Your task to perform on an android device: set the timer Image 0: 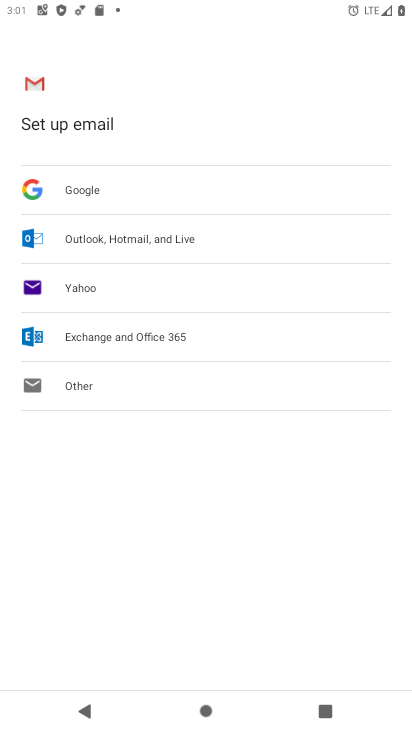
Step 0: press home button
Your task to perform on an android device: set the timer Image 1: 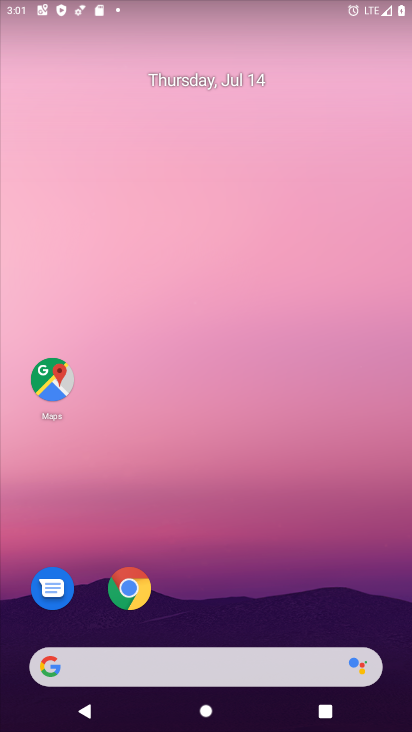
Step 1: drag from (288, 612) to (306, 270)
Your task to perform on an android device: set the timer Image 2: 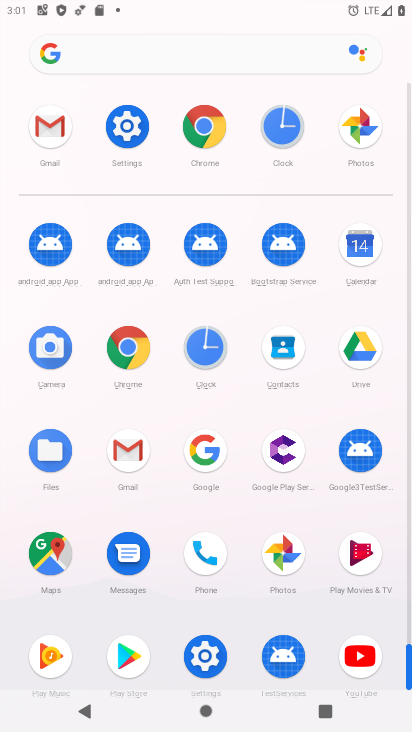
Step 2: click (273, 122)
Your task to perform on an android device: set the timer Image 3: 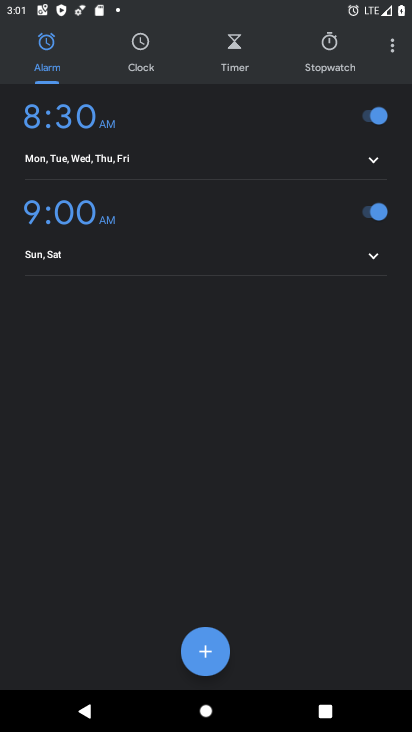
Step 3: click (246, 62)
Your task to perform on an android device: set the timer Image 4: 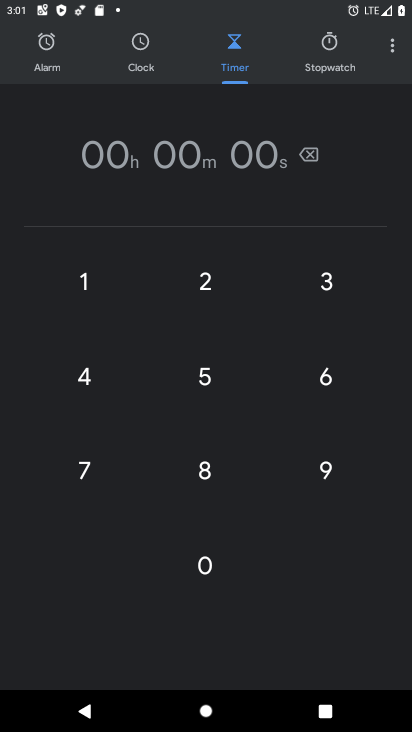
Step 4: click (197, 160)
Your task to perform on an android device: set the timer Image 5: 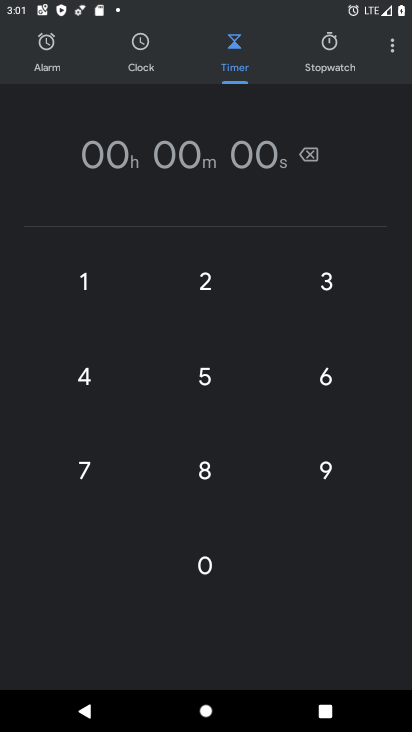
Step 5: type "09099090 "
Your task to perform on an android device: set the timer Image 6: 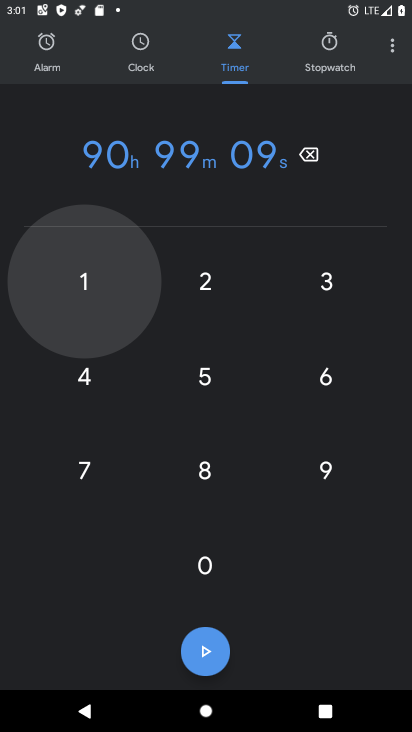
Step 6: task complete